Your task to perform on an android device: check the backup settings in the google photos Image 0: 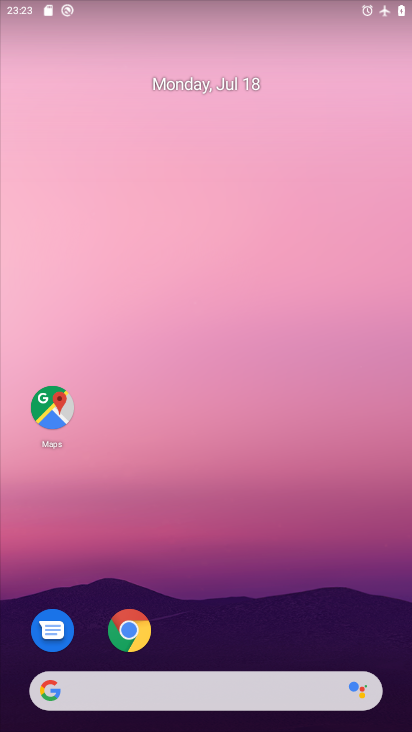
Step 0: drag from (257, 578) to (213, 76)
Your task to perform on an android device: check the backup settings in the google photos Image 1: 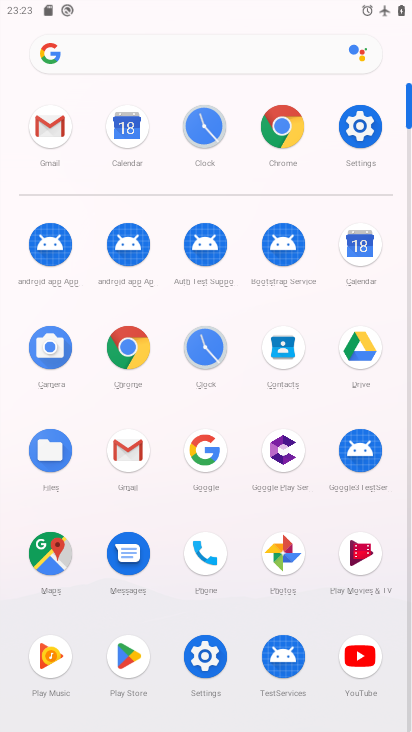
Step 1: click (294, 548)
Your task to perform on an android device: check the backup settings in the google photos Image 2: 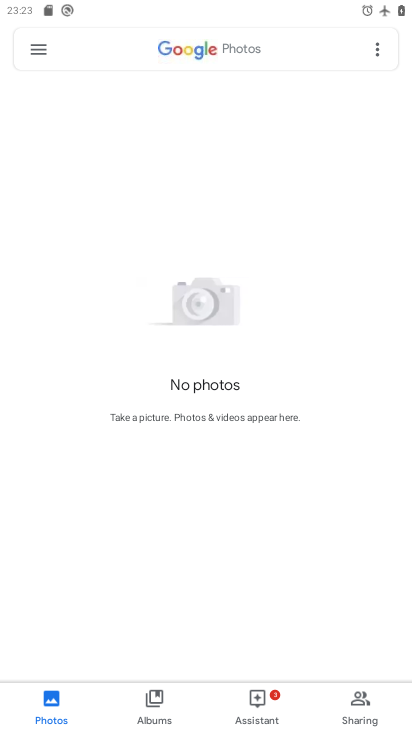
Step 2: click (41, 41)
Your task to perform on an android device: check the backup settings in the google photos Image 3: 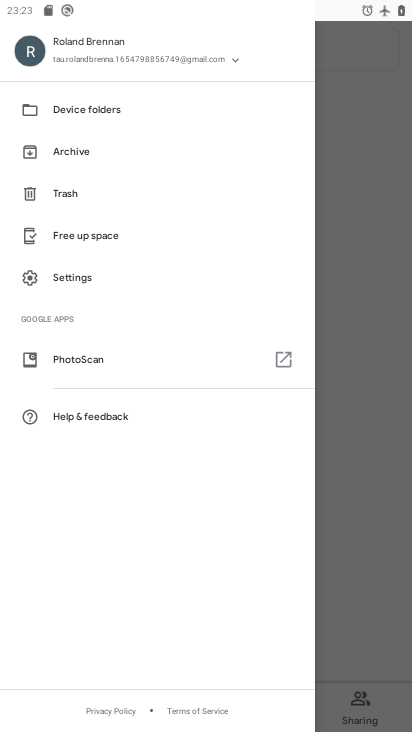
Step 3: click (74, 286)
Your task to perform on an android device: check the backup settings in the google photos Image 4: 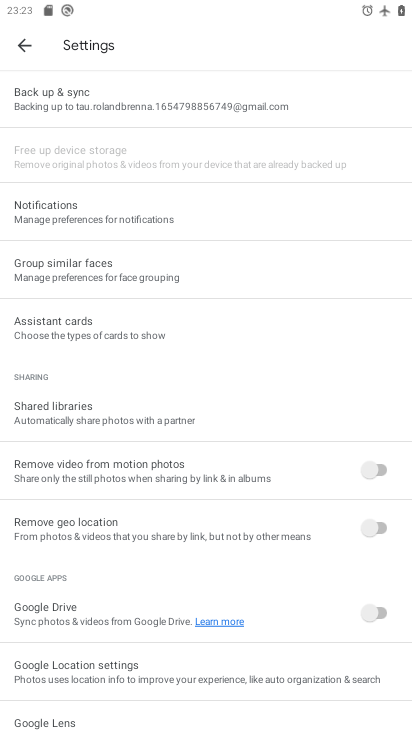
Step 4: click (151, 109)
Your task to perform on an android device: check the backup settings in the google photos Image 5: 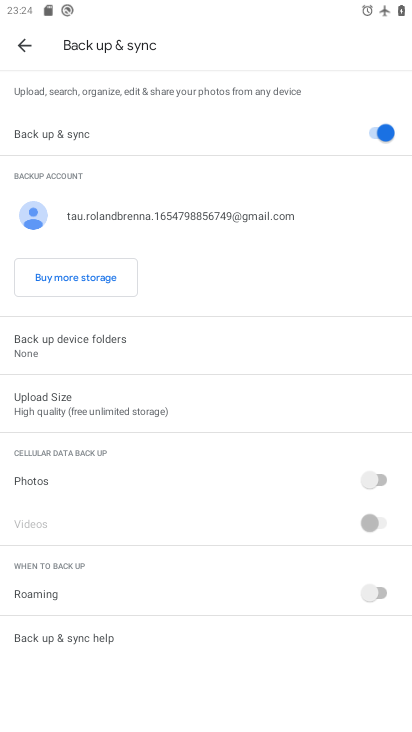
Step 5: task complete